Your task to perform on an android device: turn off picture-in-picture Image 0: 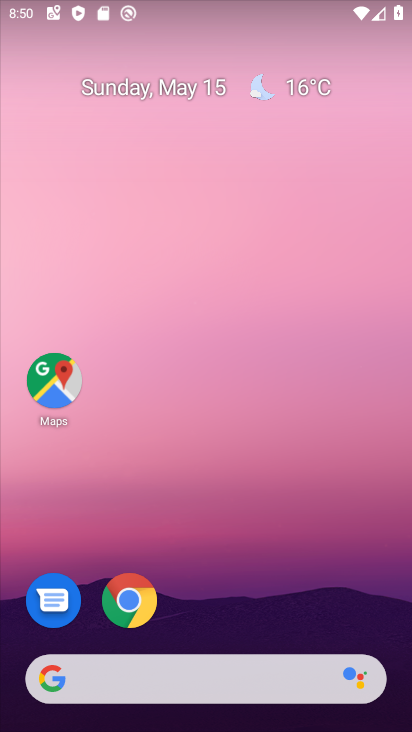
Step 0: click (130, 611)
Your task to perform on an android device: turn off picture-in-picture Image 1: 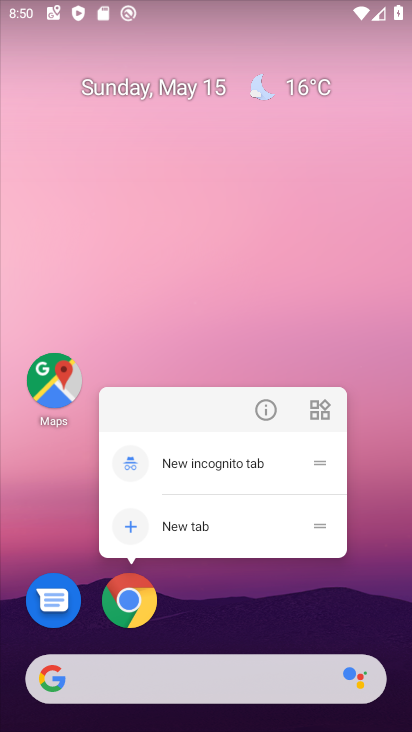
Step 1: click (268, 413)
Your task to perform on an android device: turn off picture-in-picture Image 2: 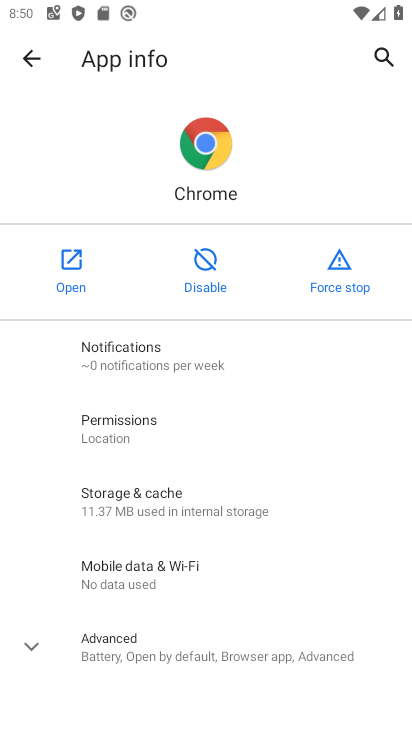
Step 2: click (118, 651)
Your task to perform on an android device: turn off picture-in-picture Image 3: 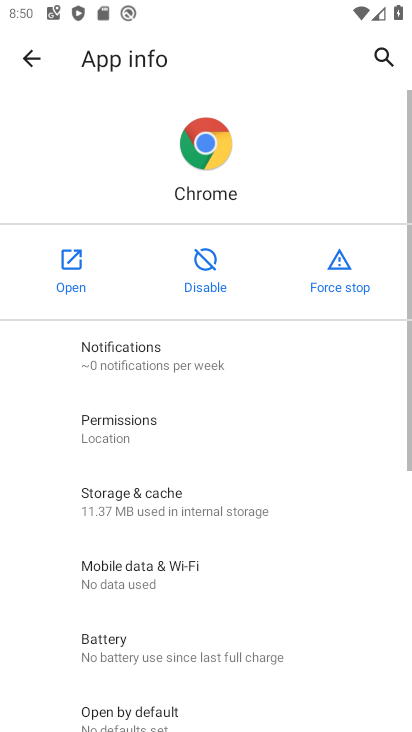
Step 3: drag from (118, 651) to (104, 85)
Your task to perform on an android device: turn off picture-in-picture Image 4: 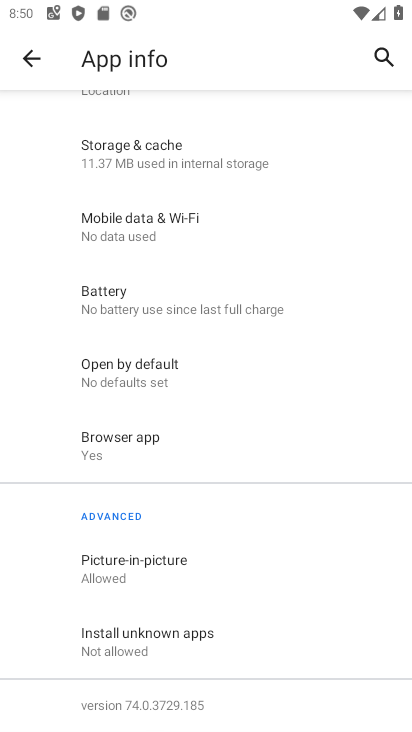
Step 4: click (172, 564)
Your task to perform on an android device: turn off picture-in-picture Image 5: 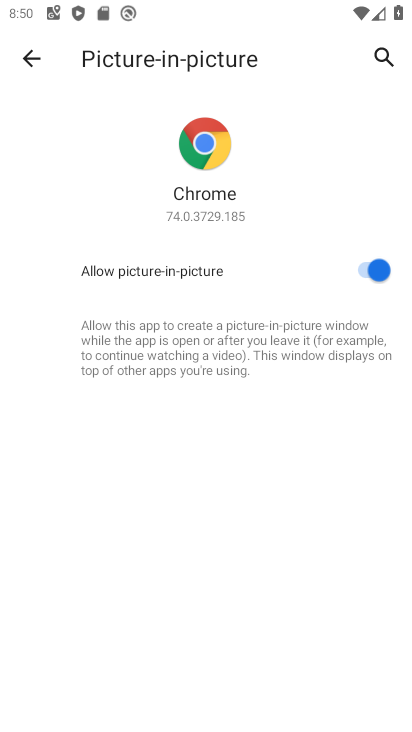
Step 5: click (377, 264)
Your task to perform on an android device: turn off picture-in-picture Image 6: 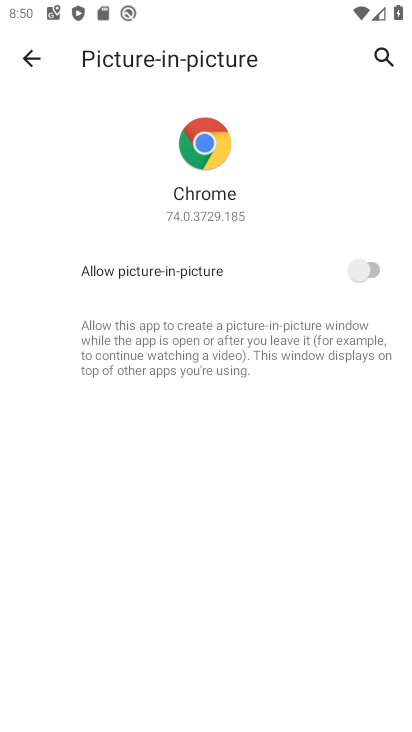
Step 6: task complete